Your task to perform on an android device: turn off location Image 0: 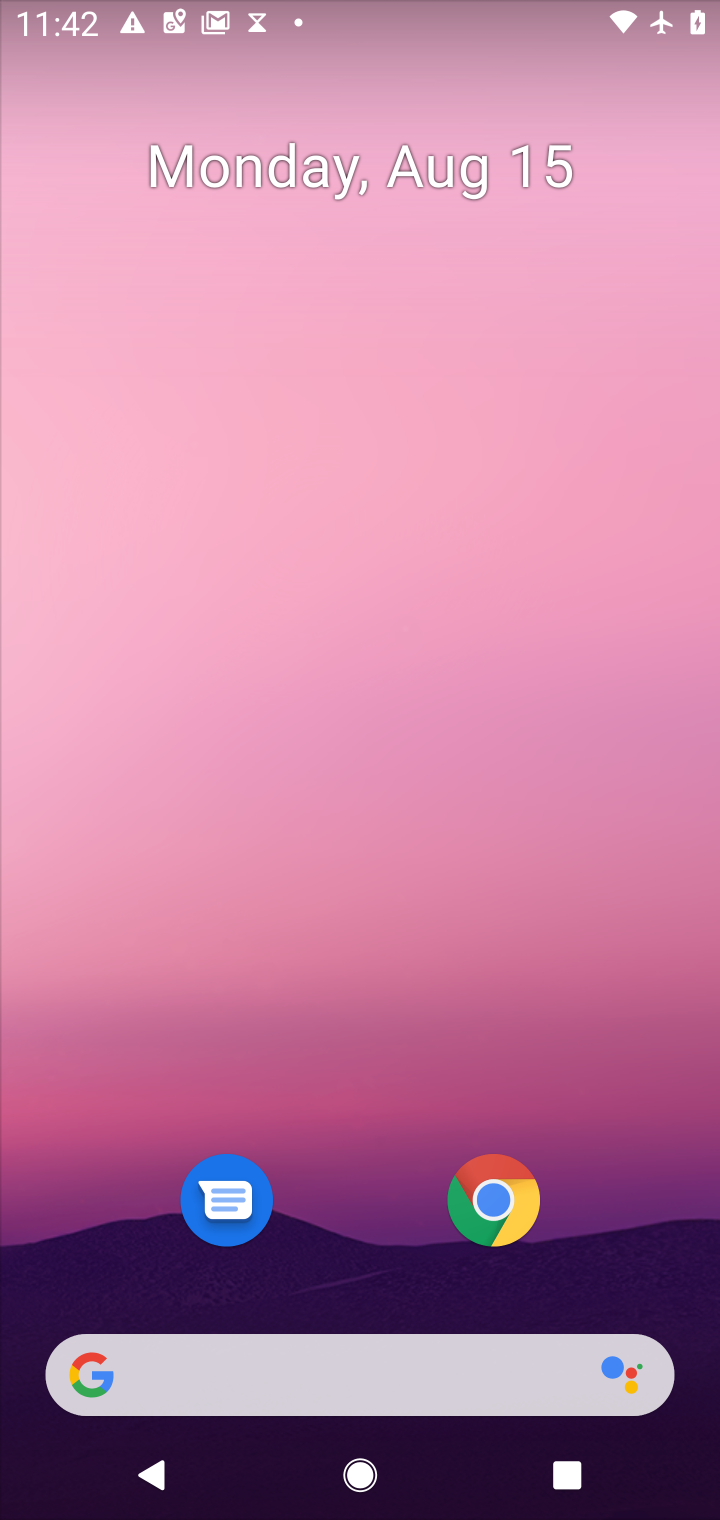
Step 0: drag from (362, 1043) to (359, 471)
Your task to perform on an android device: turn off location Image 1: 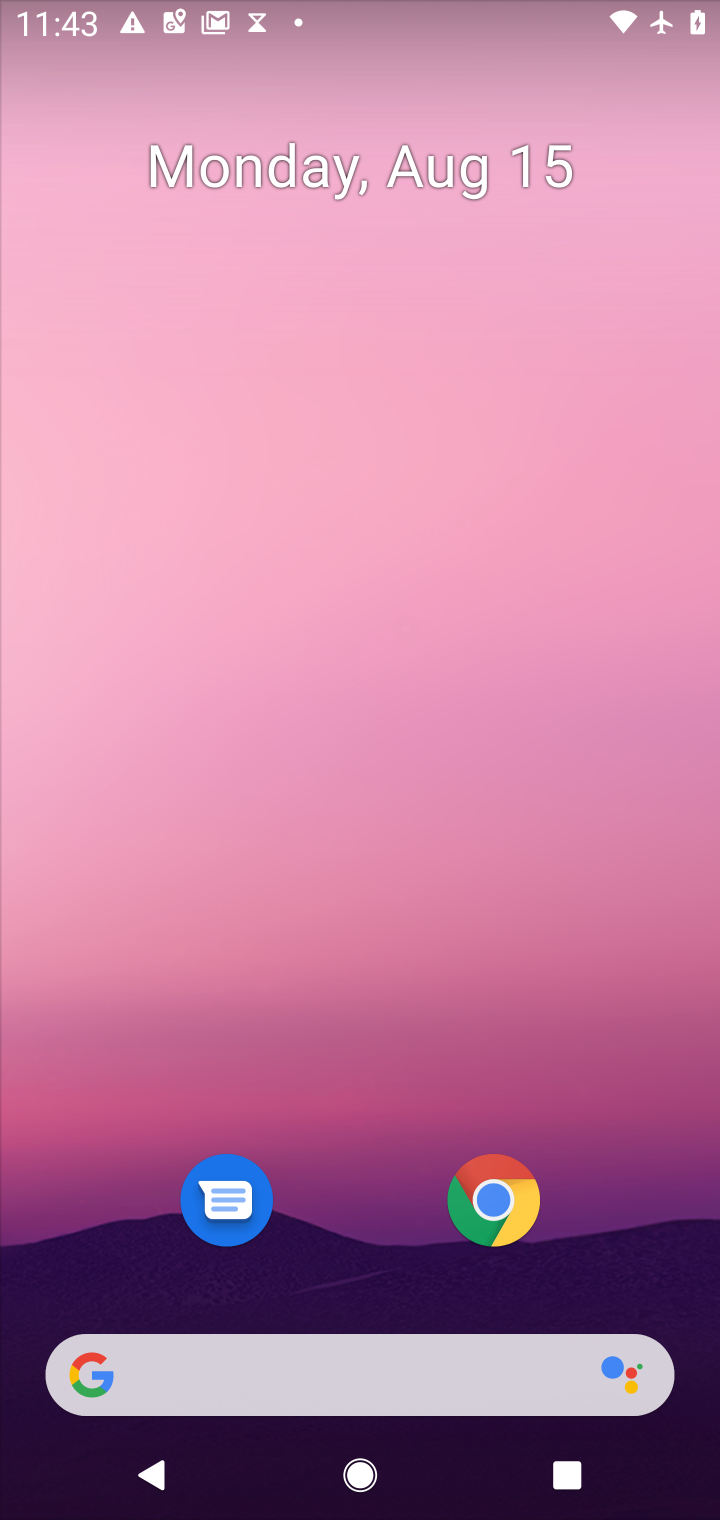
Step 1: drag from (388, 516) to (388, 184)
Your task to perform on an android device: turn off location Image 2: 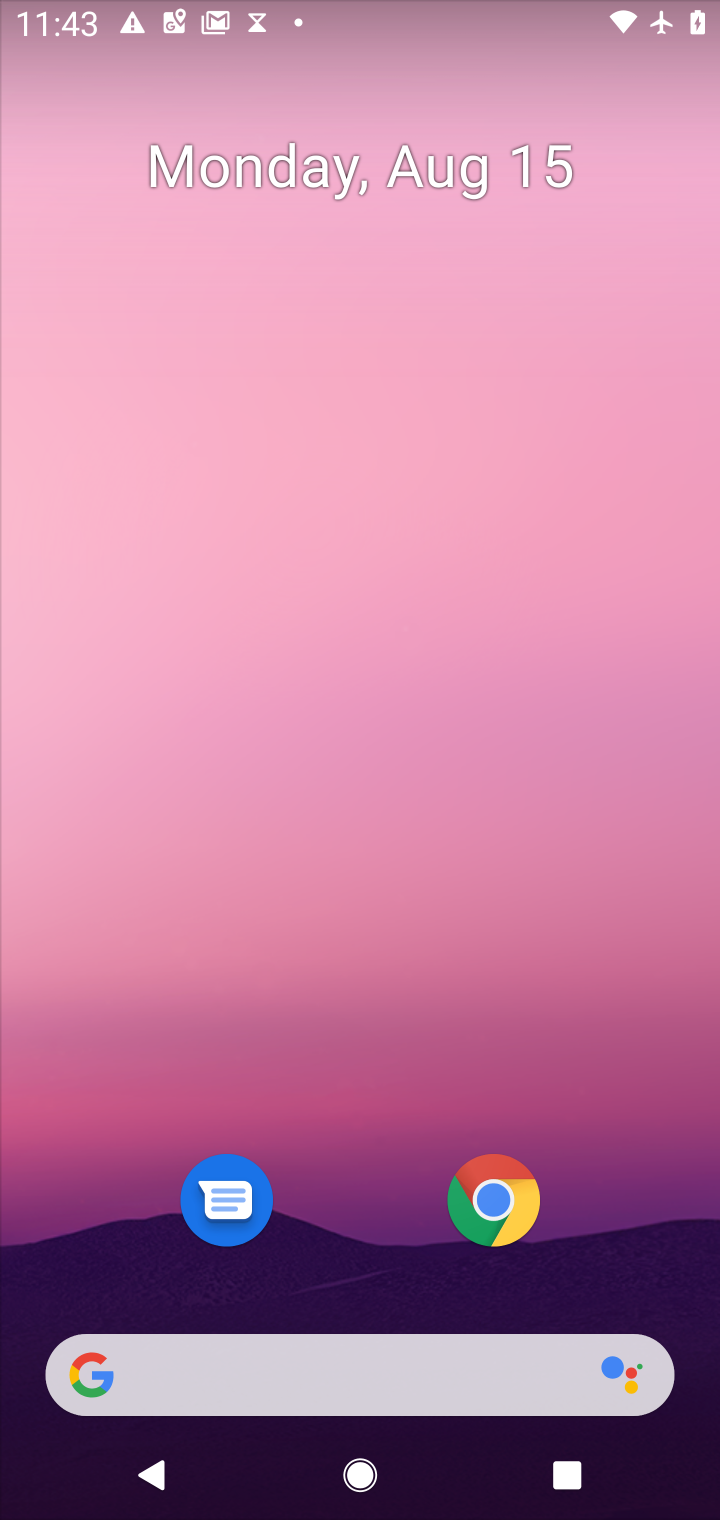
Step 2: drag from (342, 964) to (342, 295)
Your task to perform on an android device: turn off location Image 3: 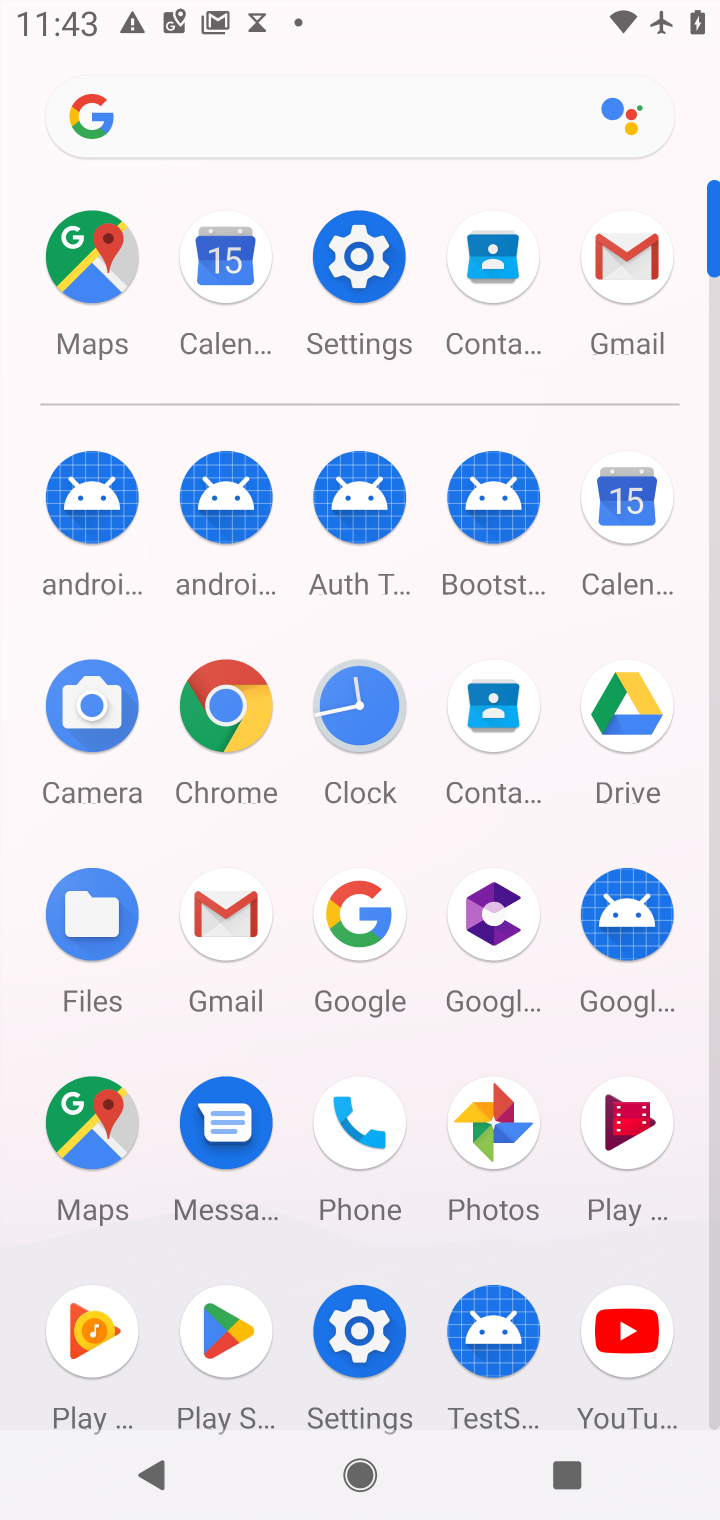
Step 3: click (371, 269)
Your task to perform on an android device: turn off location Image 4: 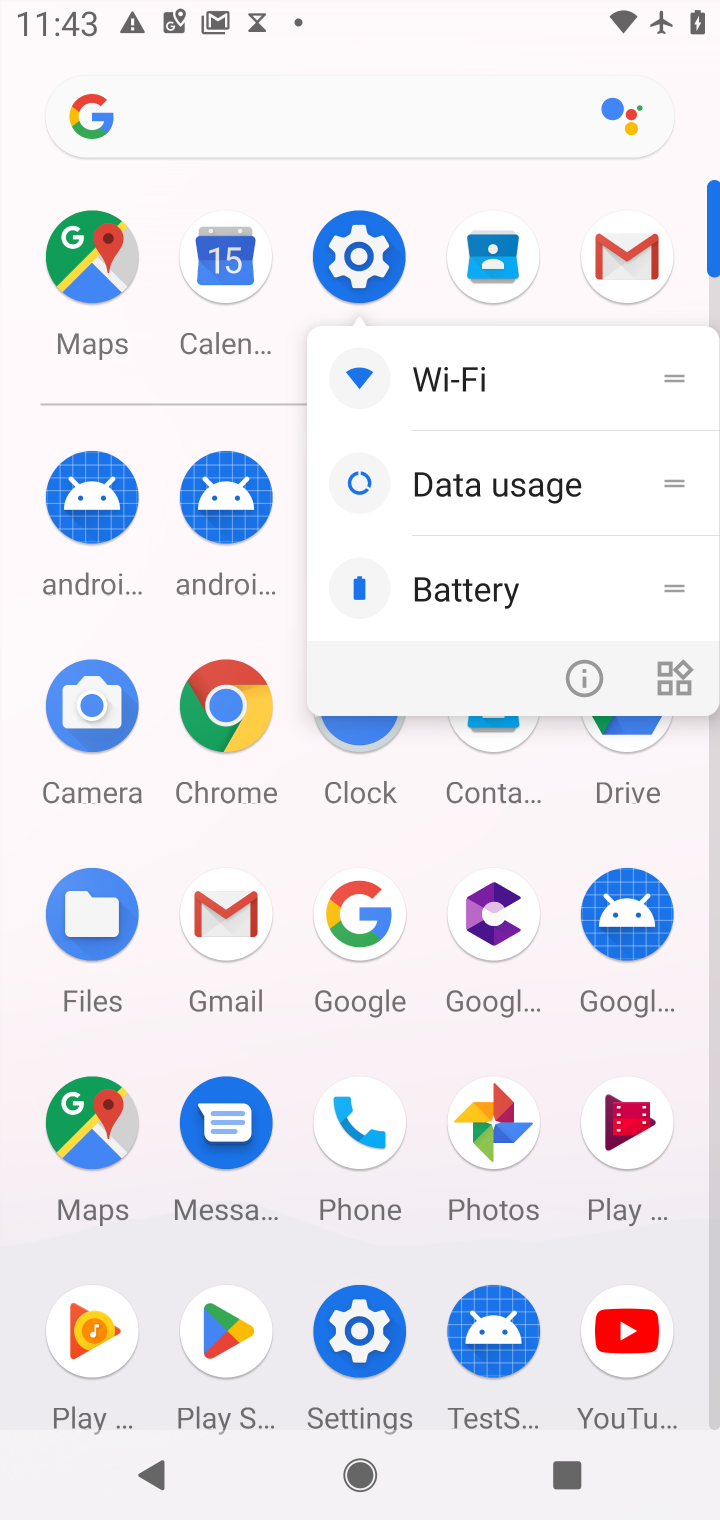
Step 4: click (371, 269)
Your task to perform on an android device: turn off location Image 5: 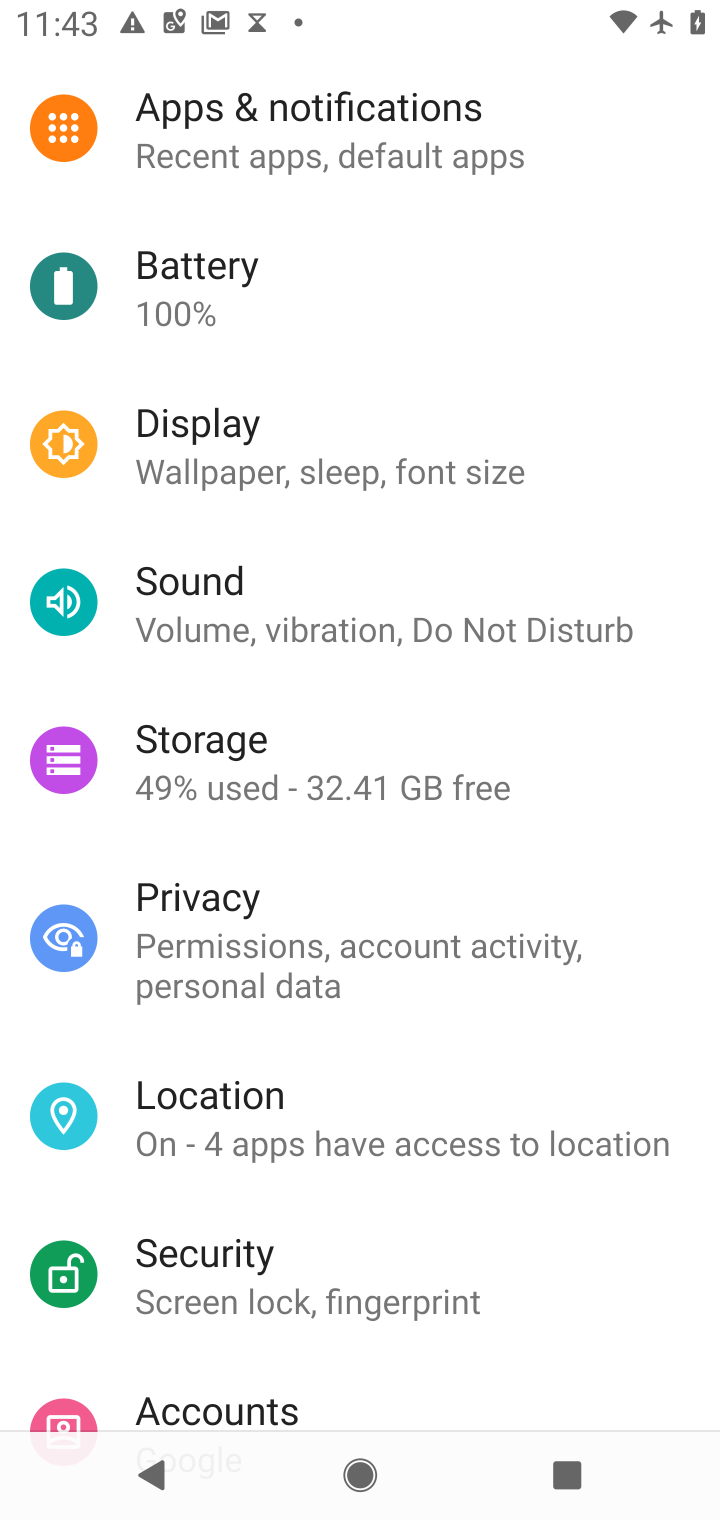
Step 5: click (245, 1132)
Your task to perform on an android device: turn off location Image 6: 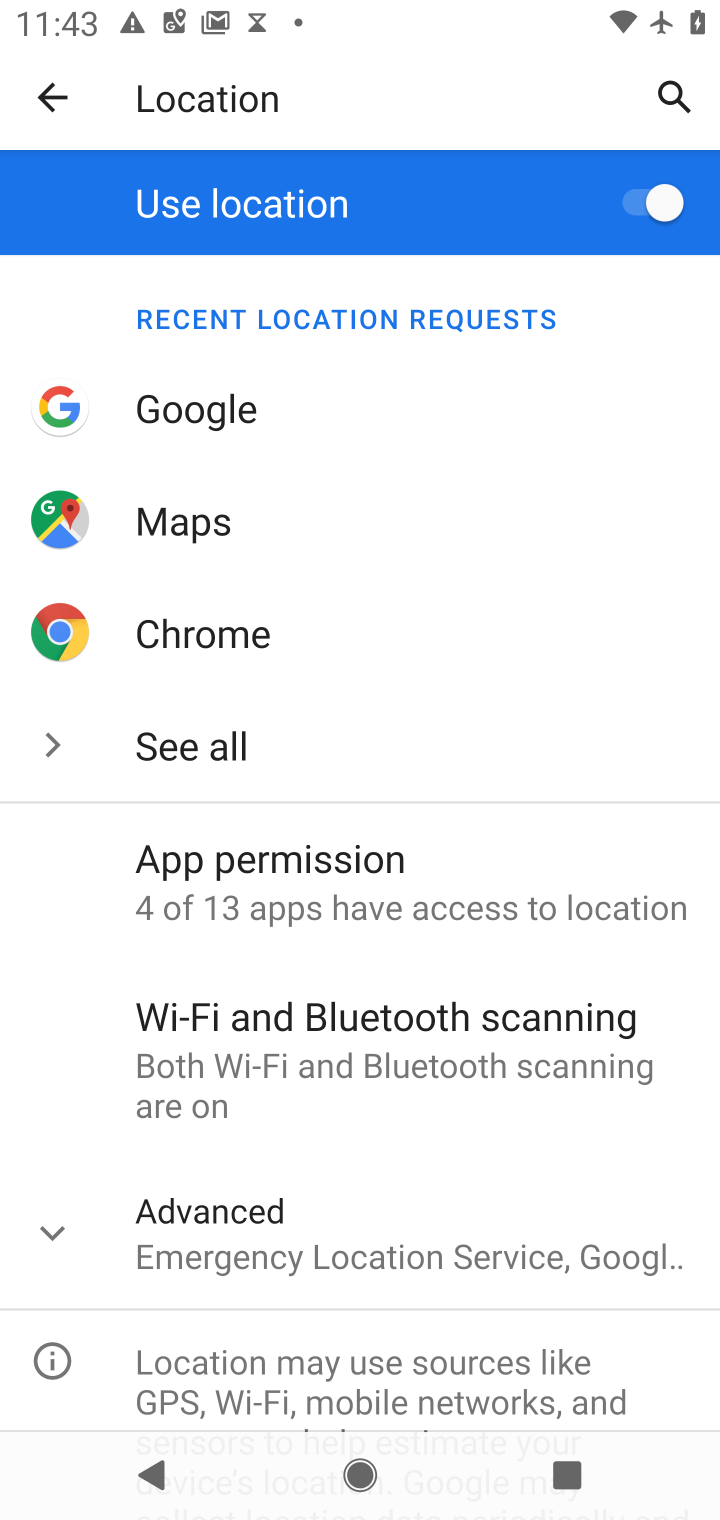
Step 6: click (621, 198)
Your task to perform on an android device: turn off location Image 7: 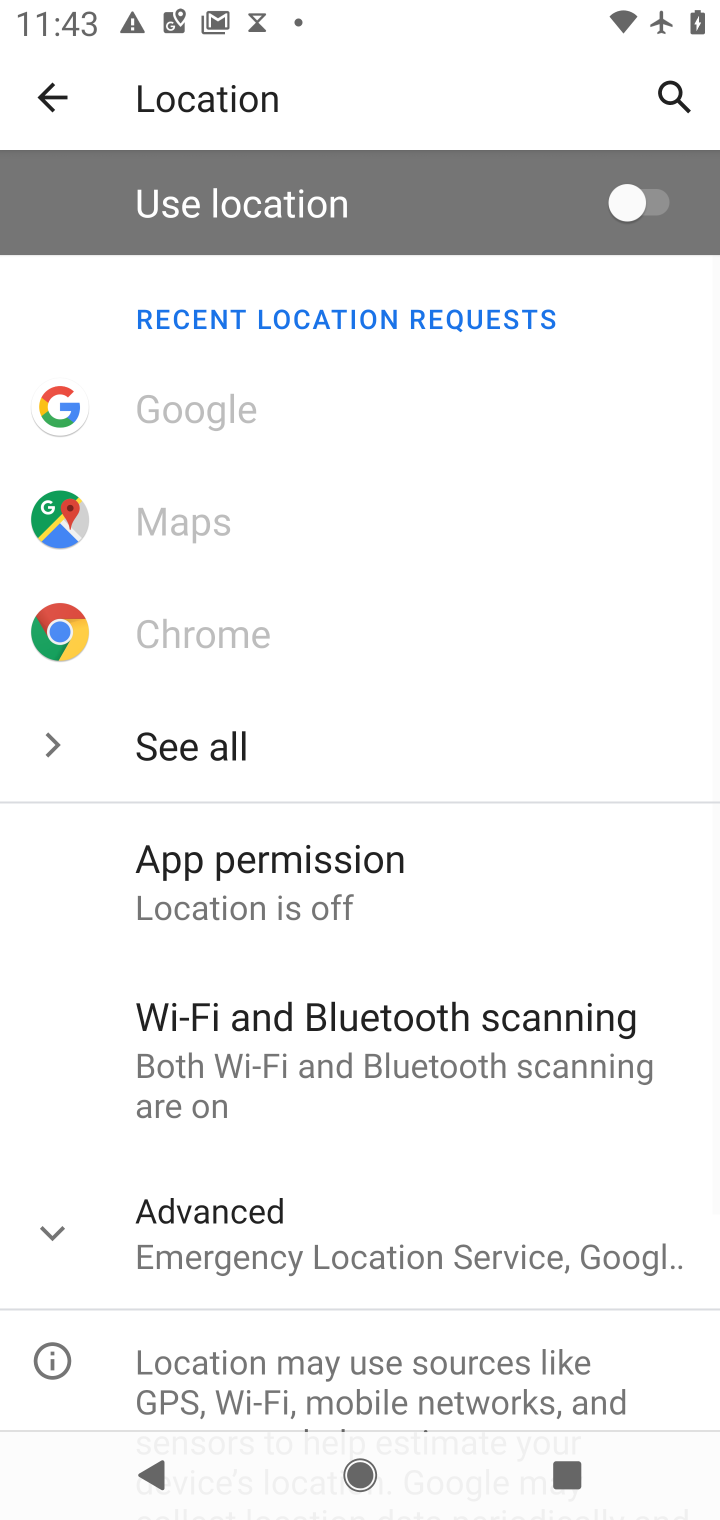
Step 7: task complete